Your task to perform on an android device: turn on bluetooth scan Image 0: 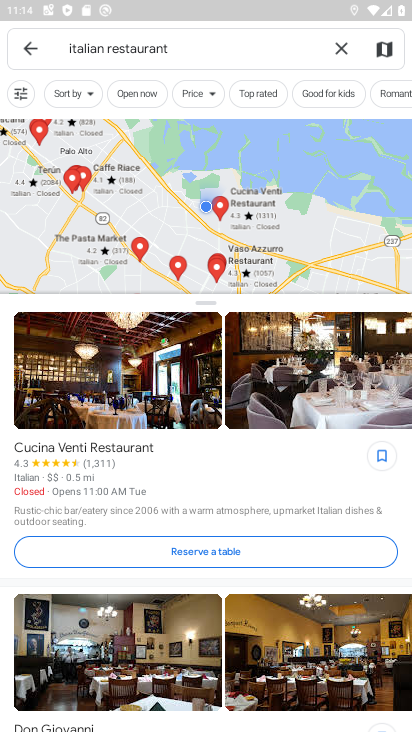
Step 0: press home button
Your task to perform on an android device: turn on bluetooth scan Image 1: 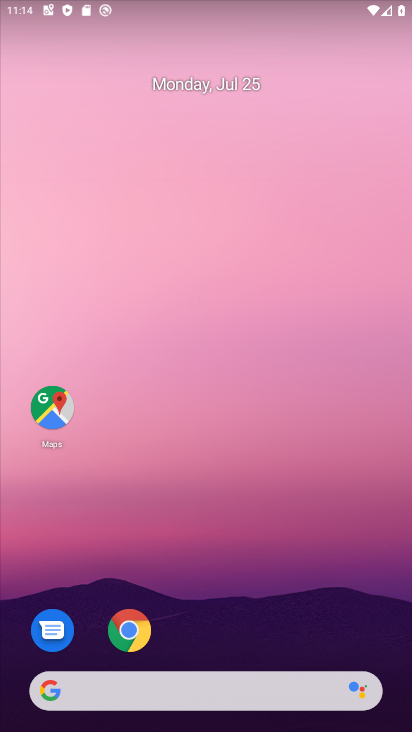
Step 1: drag from (228, 658) to (265, 0)
Your task to perform on an android device: turn on bluetooth scan Image 2: 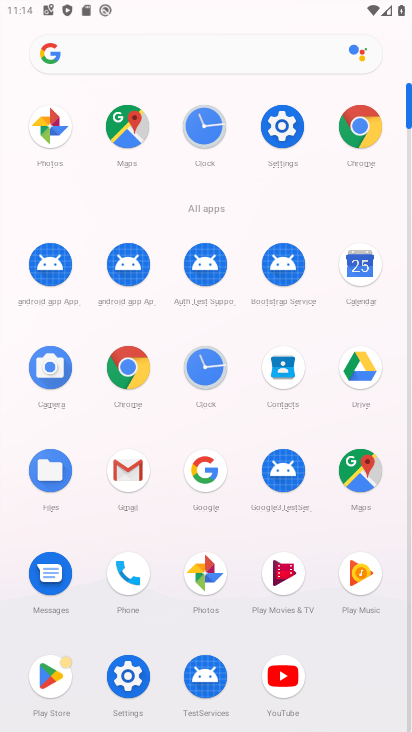
Step 2: click (283, 132)
Your task to perform on an android device: turn on bluetooth scan Image 3: 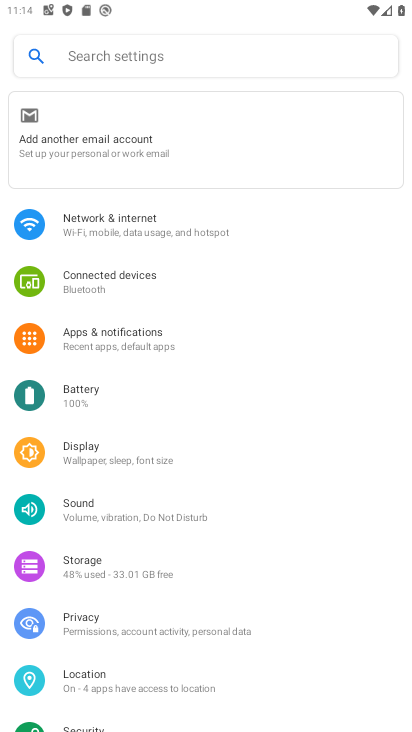
Step 3: click (60, 675)
Your task to perform on an android device: turn on bluetooth scan Image 4: 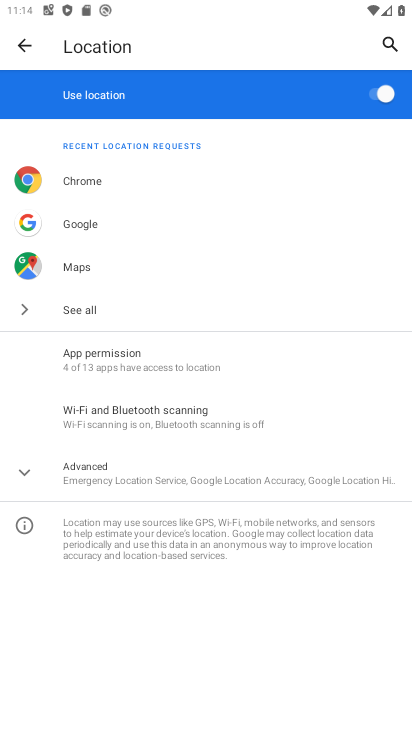
Step 4: click (151, 410)
Your task to perform on an android device: turn on bluetooth scan Image 5: 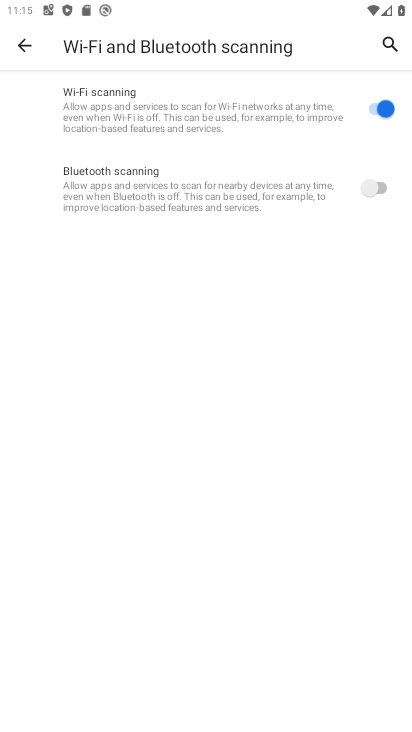
Step 5: click (376, 183)
Your task to perform on an android device: turn on bluetooth scan Image 6: 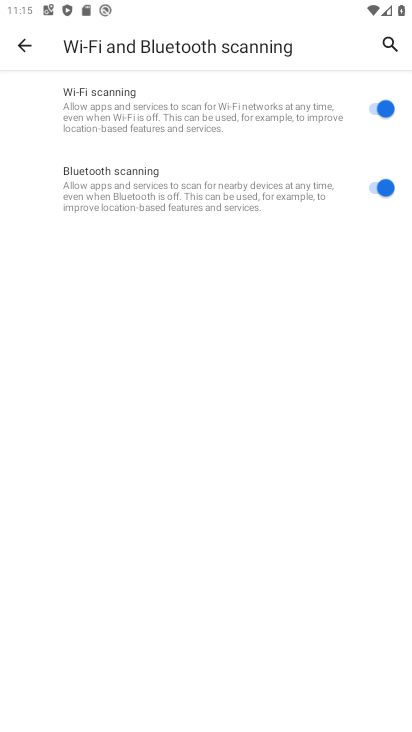
Step 6: task complete